Your task to perform on an android device: uninstall "ZOOM Cloud Meetings" Image 0: 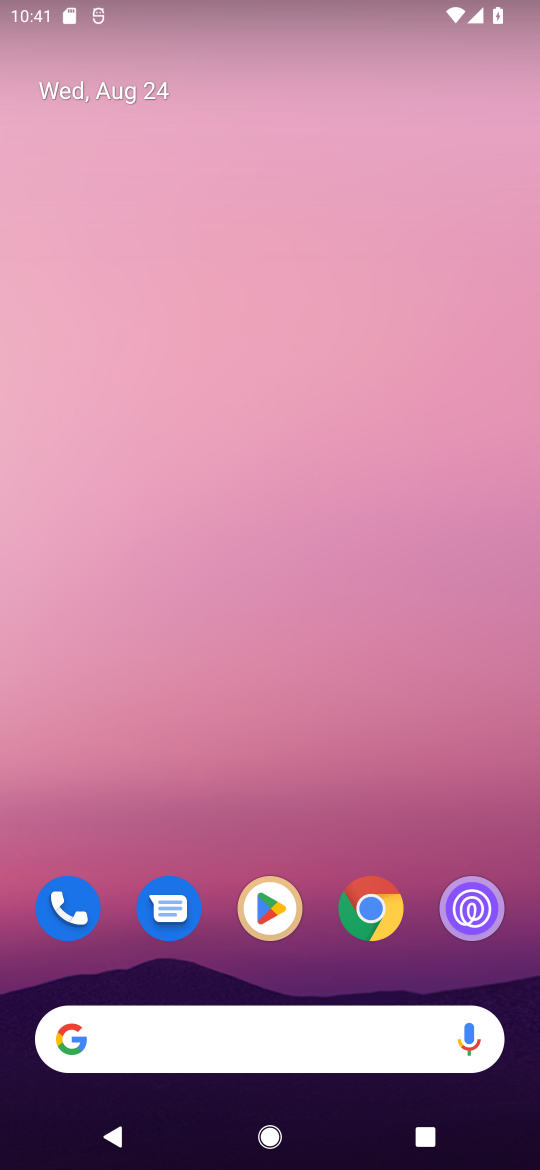
Step 0: click (261, 945)
Your task to perform on an android device: uninstall "ZOOM Cloud Meetings" Image 1: 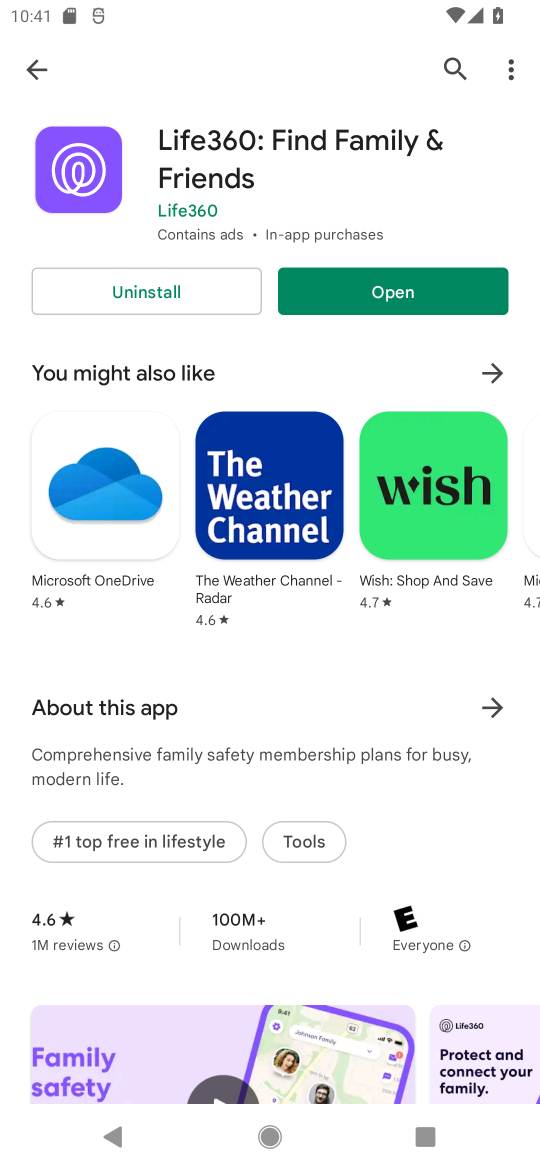
Step 1: click (44, 56)
Your task to perform on an android device: uninstall "ZOOM Cloud Meetings" Image 2: 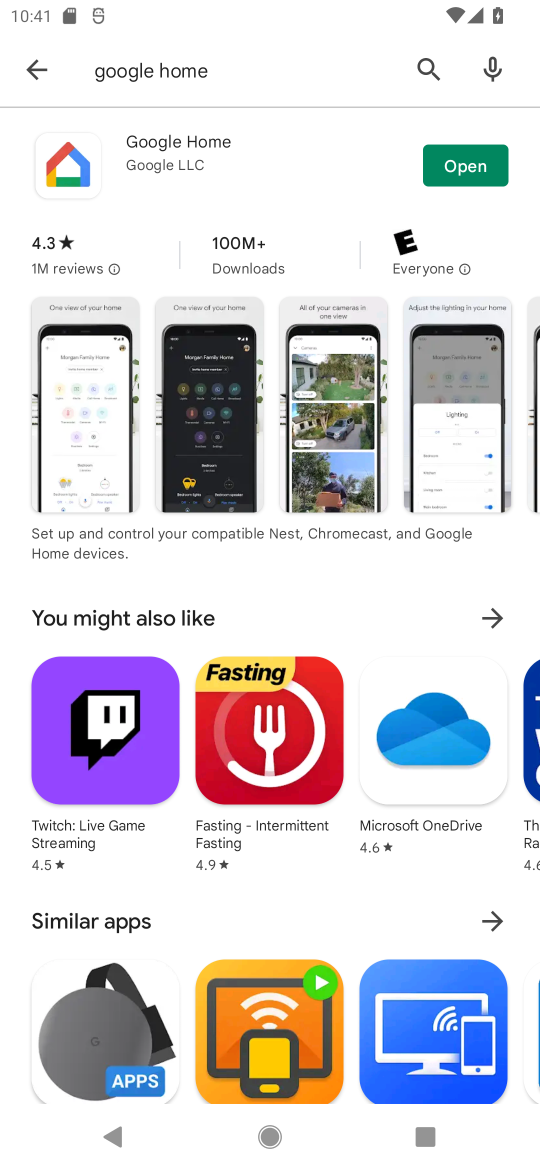
Step 2: click (428, 65)
Your task to perform on an android device: uninstall "ZOOM Cloud Meetings" Image 3: 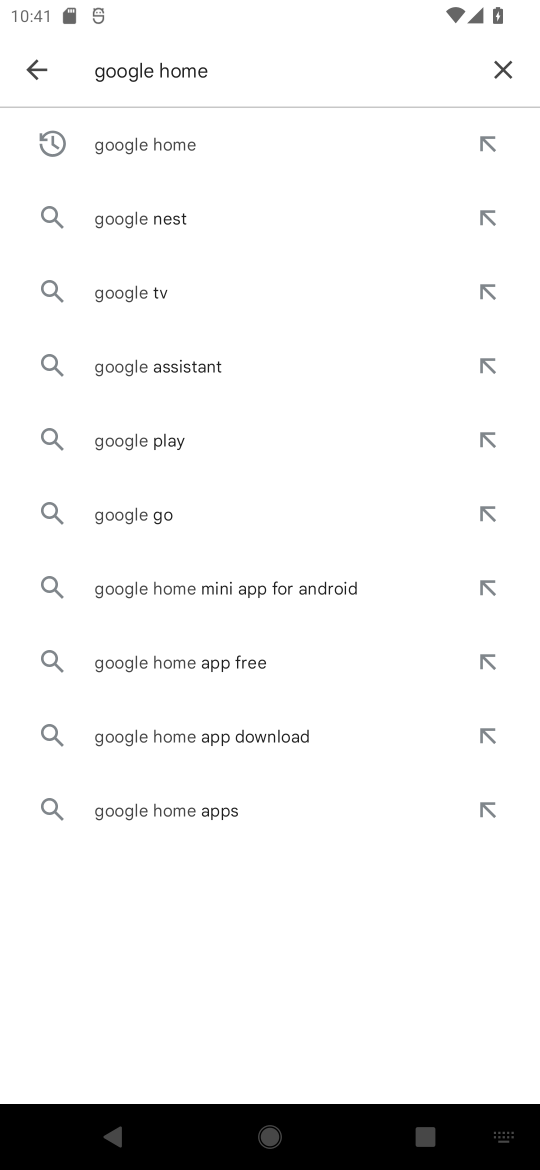
Step 3: click (494, 60)
Your task to perform on an android device: uninstall "ZOOM Cloud Meetings" Image 4: 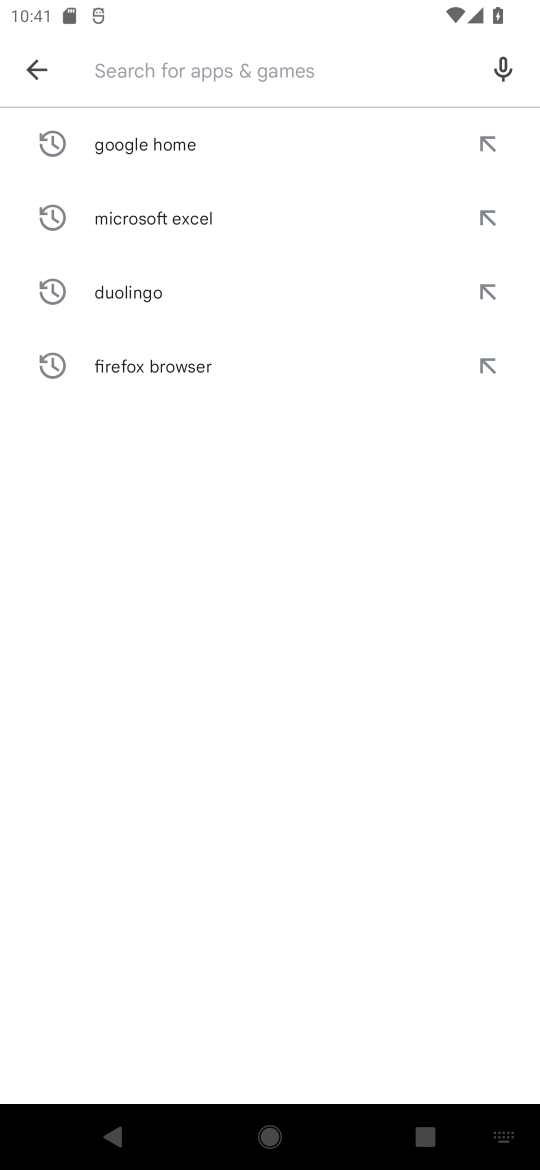
Step 4: type "ZOOM Cloud Meetings"
Your task to perform on an android device: uninstall "ZOOM Cloud Meetings" Image 5: 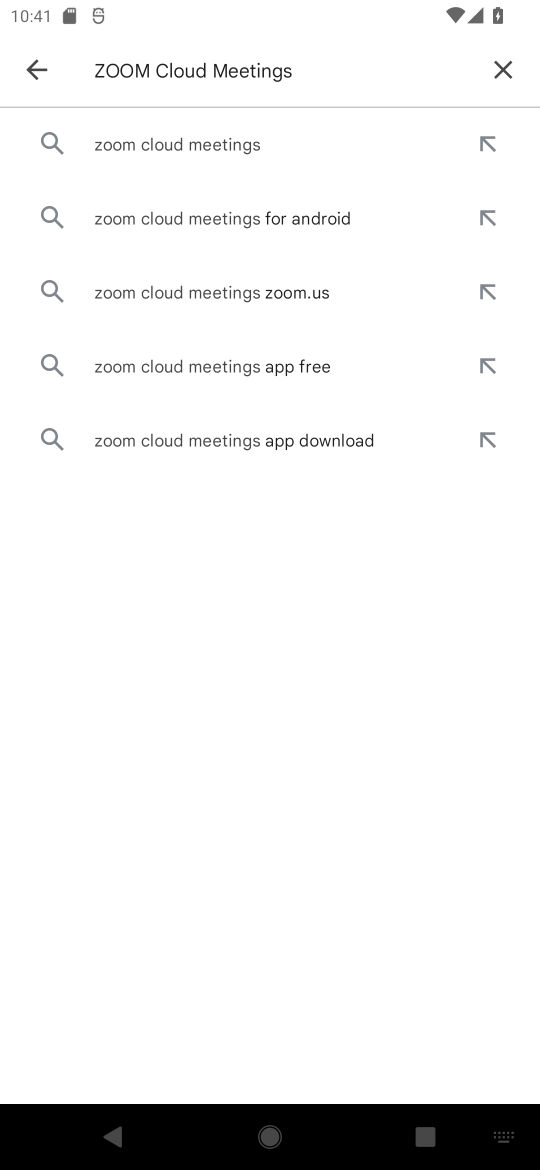
Step 5: click (177, 155)
Your task to perform on an android device: uninstall "ZOOM Cloud Meetings" Image 6: 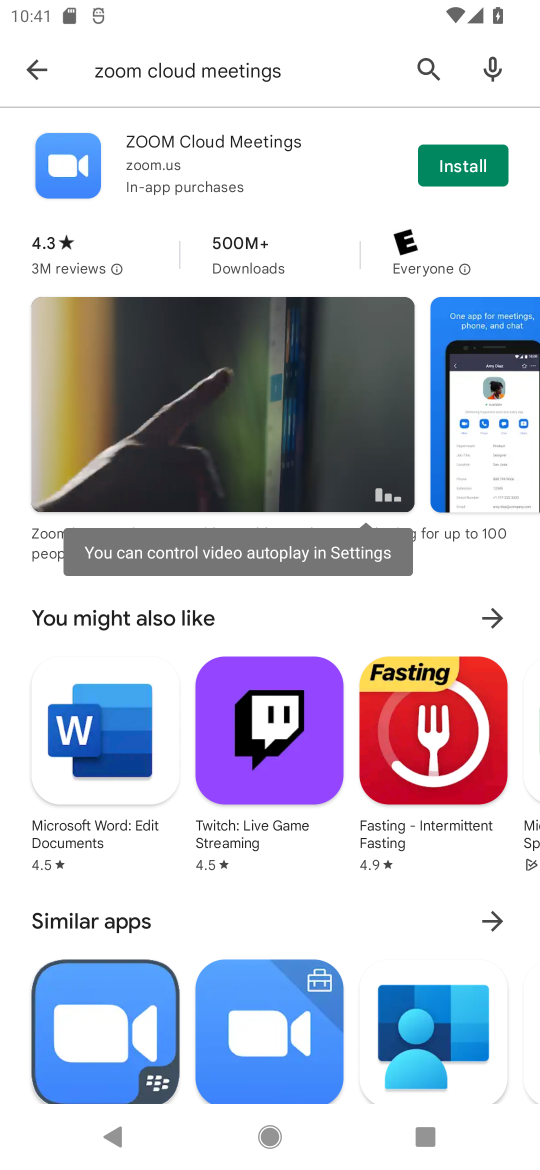
Step 6: task complete